Your task to perform on an android device: check battery use Image 0: 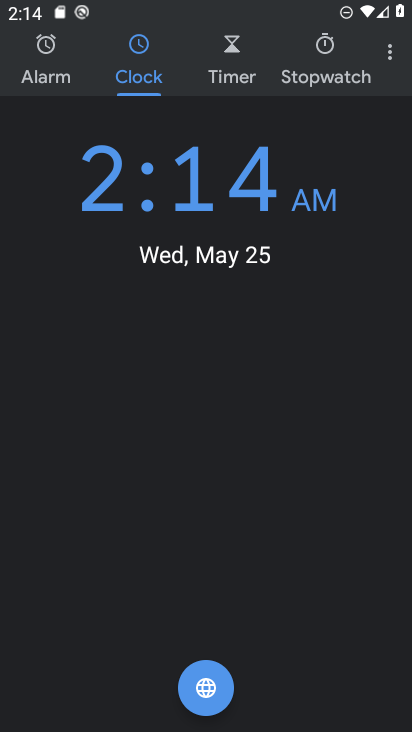
Step 0: press home button
Your task to perform on an android device: check battery use Image 1: 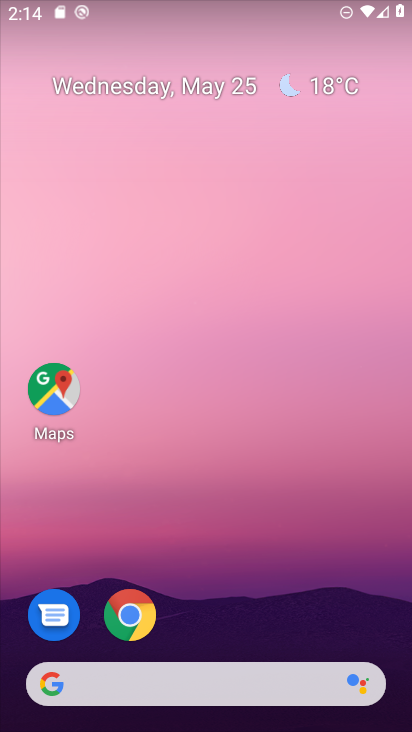
Step 1: drag from (267, 516) to (265, 11)
Your task to perform on an android device: check battery use Image 2: 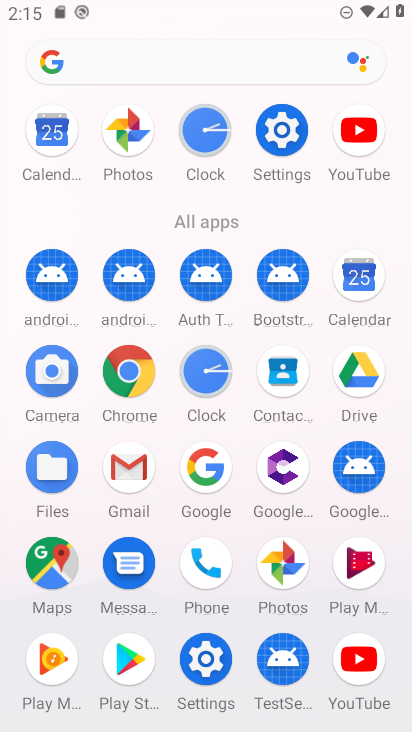
Step 2: click (281, 130)
Your task to perform on an android device: check battery use Image 3: 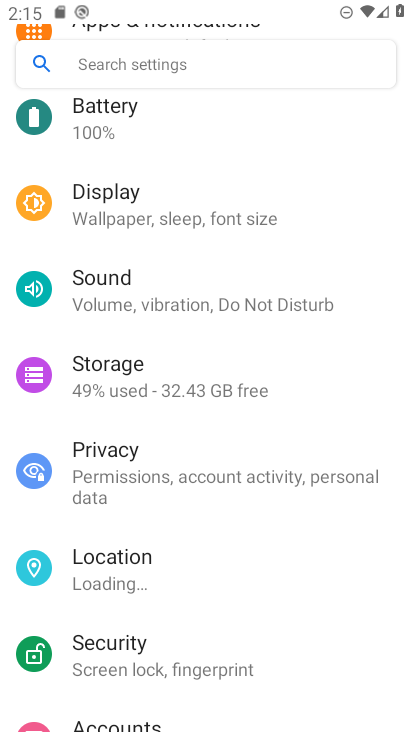
Step 3: click (176, 121)
Your task to perform on an android device: check battery use Image 4: 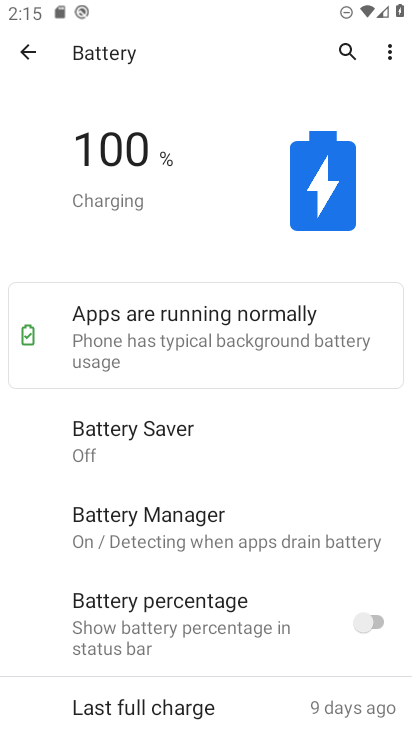
Step 4: click (385, 53)
Your task to perform on an android device: check battery use Image 5: 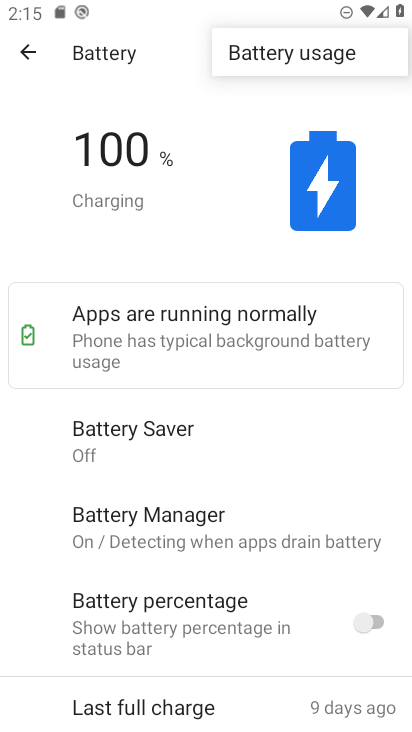
Step 5: click (330, 45)
Your task to perform on an android device: check battery use Image 6: 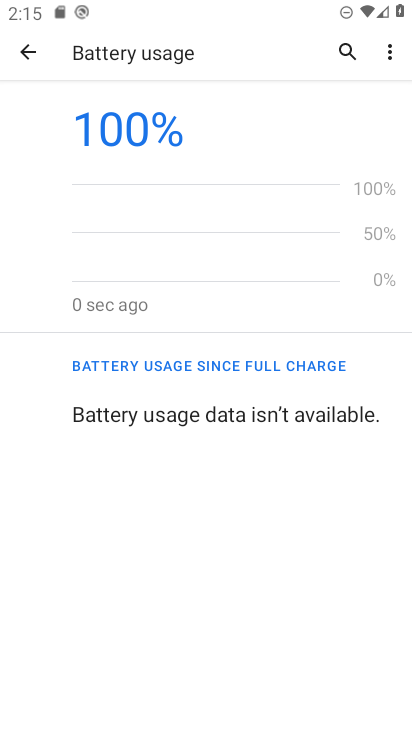
Step 6: task complete